Your task to perform on an android device: Go to network settings Image 0: 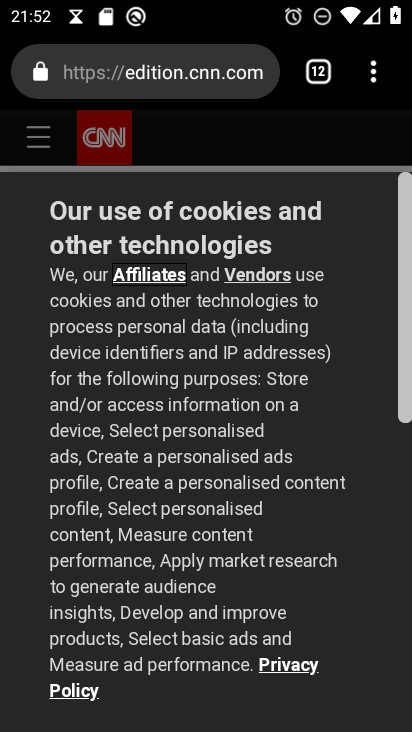
Step 0: press home button
Your task to perform on an android device: Go to network settings Image 1: 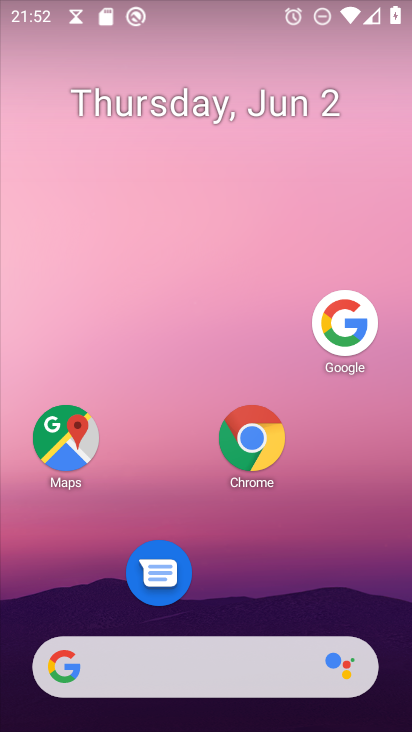
Step 1: drag from (175, 671) to (299, 147)
Your task to perform on an android device: Go to network settings Image 2: 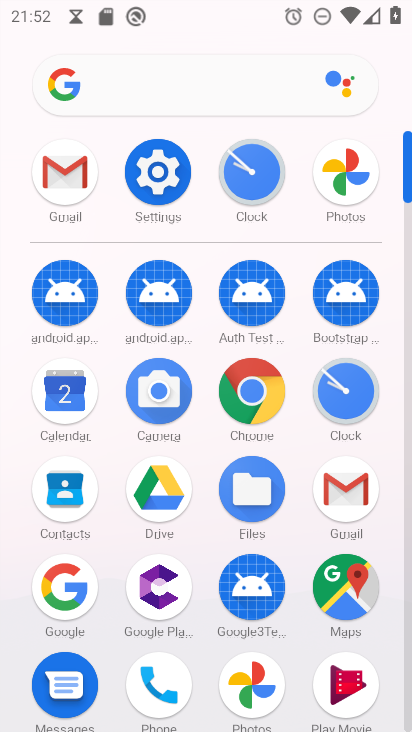
Step 2: click (160, 172)
Your task to perform on an android device: Go to network settings Image 3: 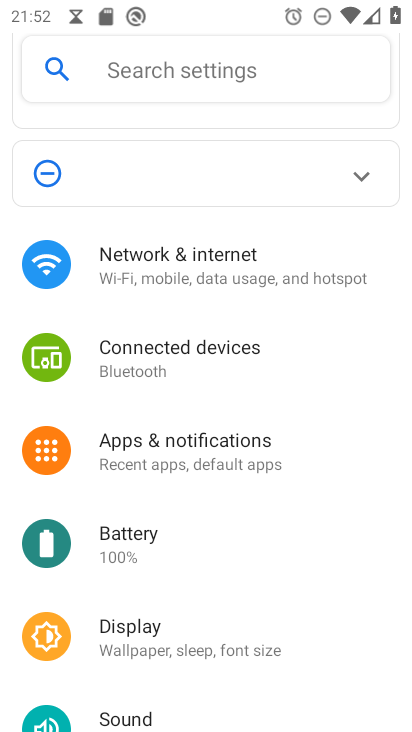
Step 3: click (178, 269)
Your task to perform on an android device: Go to network settings Image 4: 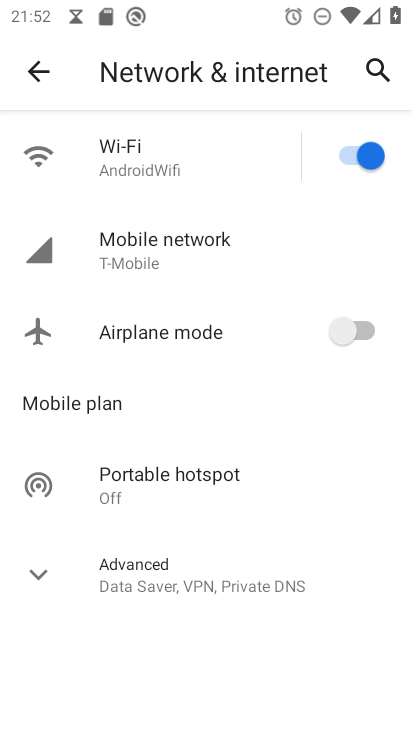
Step 4: click (173, 254)
Your task to perform on an android device: Go to network settings Image 5: 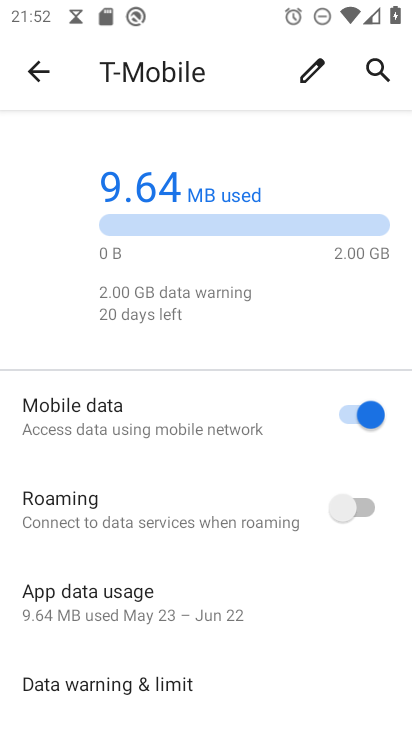
Step 5: task complete